Your task to perform on an android device: Search for Italian restaurants on Maps Image 0: 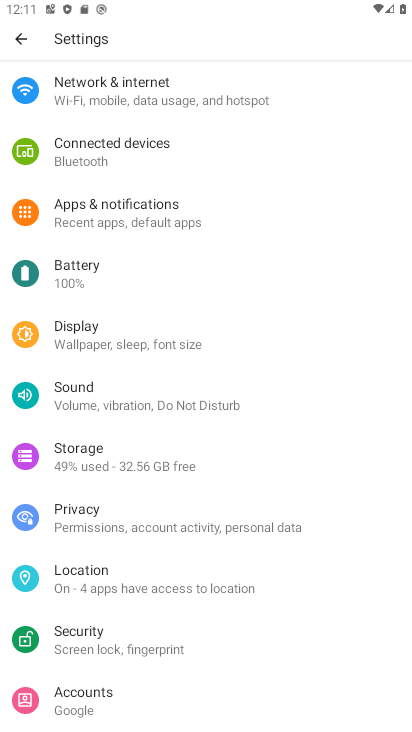
Step 0: press home button
Your task to perform on an android device: Search for Italian restaurants on Maps Image 1: 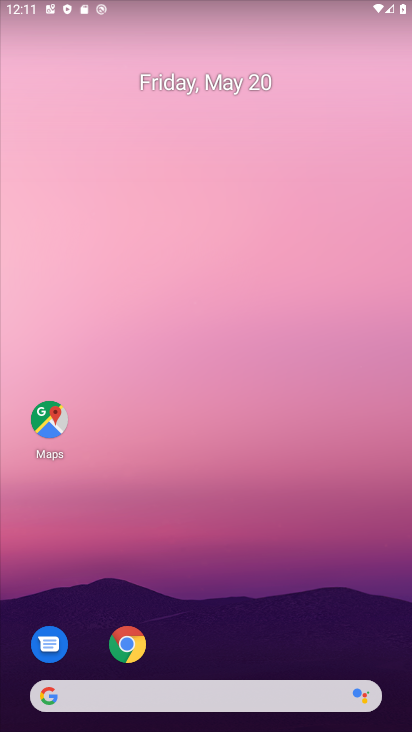
Step 1: click (48, 426)
Your task to perform on an android device: Search for Italian restaurants on Maps Image 2: 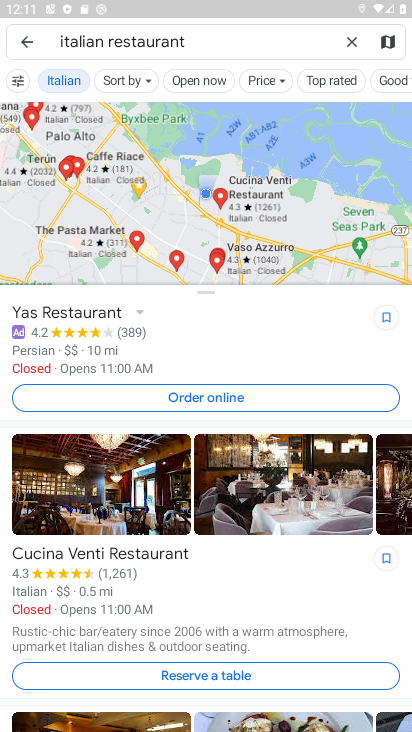
Step 2: task complete